Your task to perform on an android device: Open calendar and show me the second week of next month Image 0: 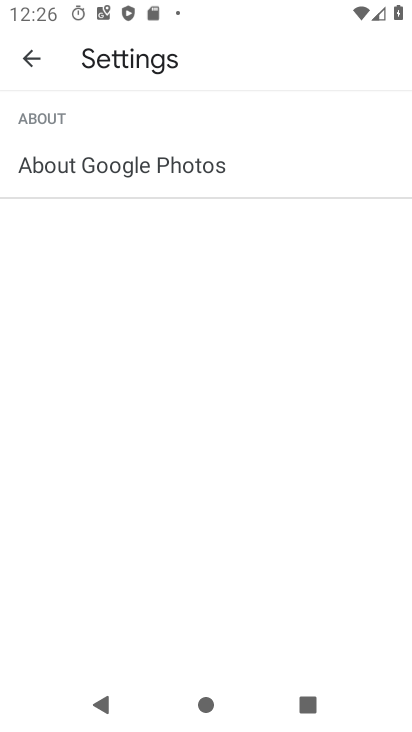
Step 0: press home button
Your task to perform on an android device: Open calendar and show me the second week of next month Image 1: 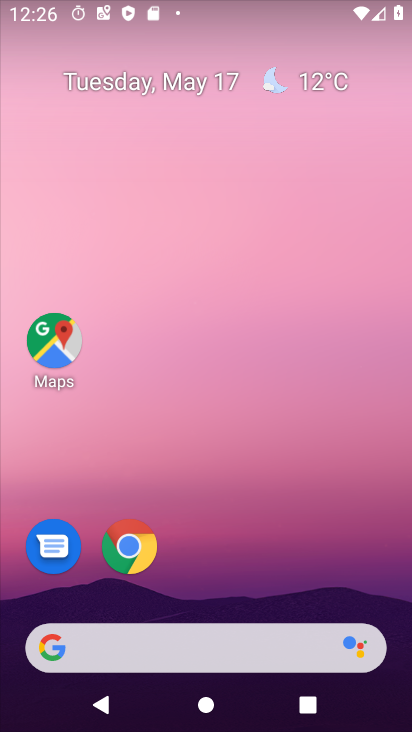
Step 1: drag from (168, 649) to (318, 120)
Your task to perform on an android device: Open calendar and show me the second week of next month Image 2: 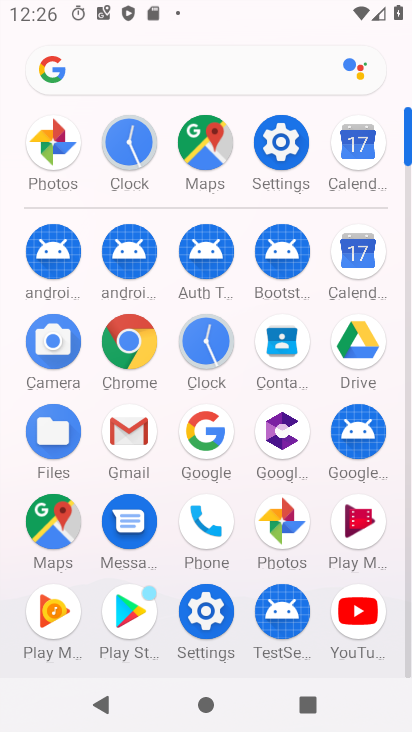
Step 2: click (340, 258)
Your task to perform on an android device: Open calendar and show me the second week of next month Image 3: 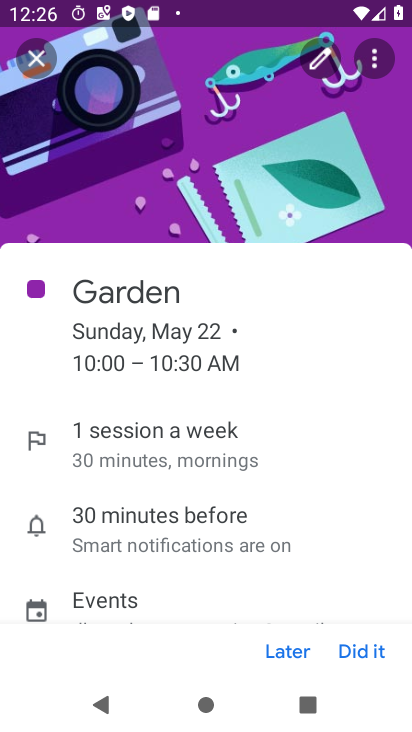
Step 3: click (34, 58)
Your task to perform on an android device: Open calendar and show me the second week of next month Image 4: 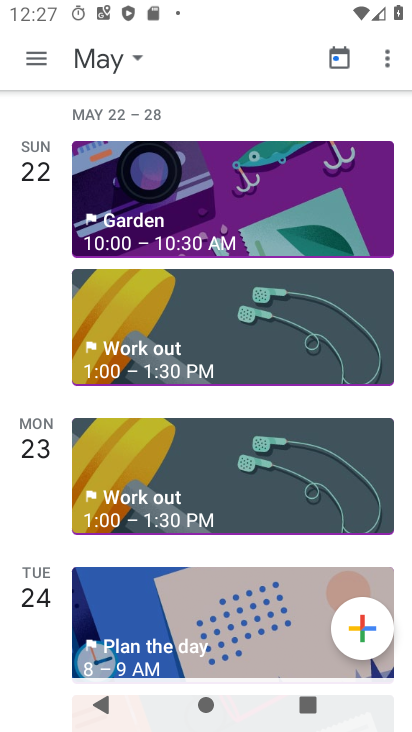
Step 4: click (104, 55)
Your task to perform on an android device: Open calendar and show me the second week of next month Image 5: 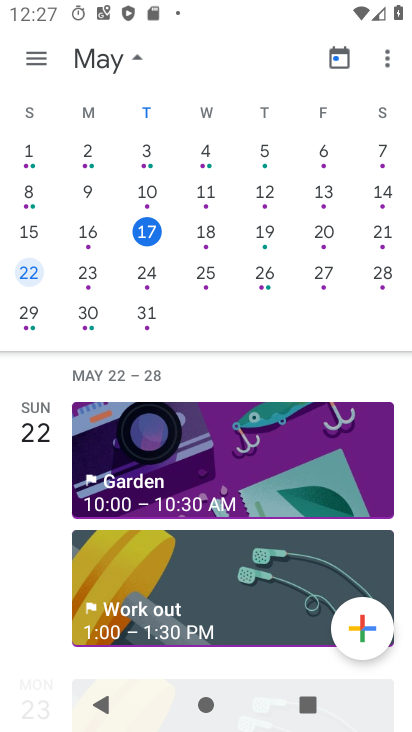
Step 5: drag from (343, 217) to (15, 178)
Your task to perform on an android device: Open calendar and show me the second week of next month Image 6: 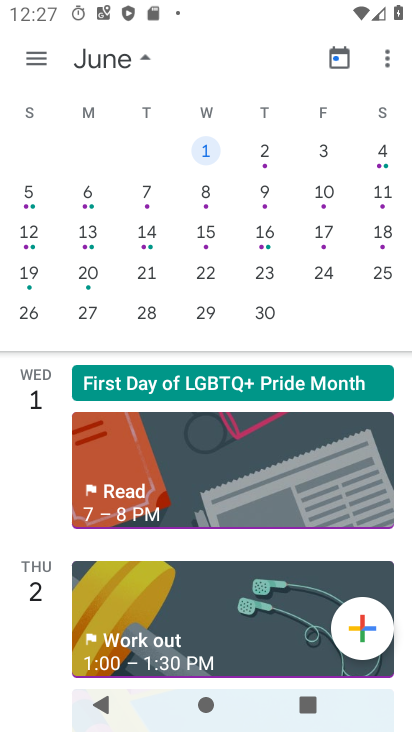
Step 6: click (34, 194)
Your task to perform on an android device: Open calendar and show me the second week of next month Image 7: 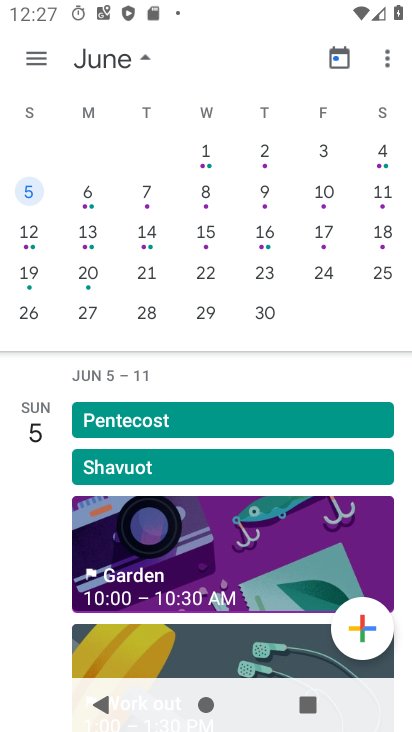
Step 7: click (30, 53)
Your task to perform on an android device: Open calendar and show me the second week of next month Image 8: 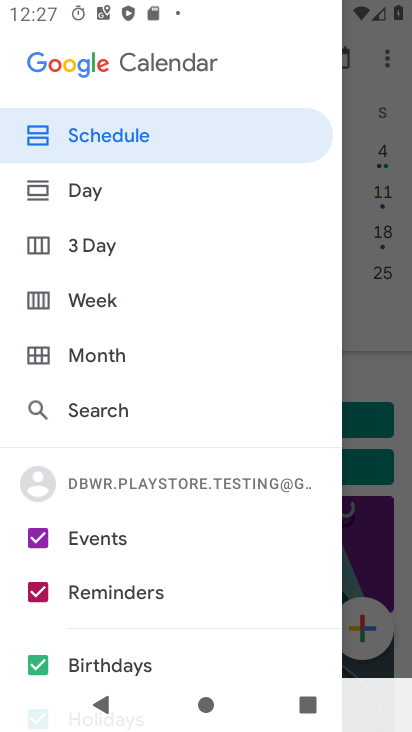
Step 8: click (99, 297)
Your task to perform on an android device: Open calendar and show me the second week of next month Image 9: 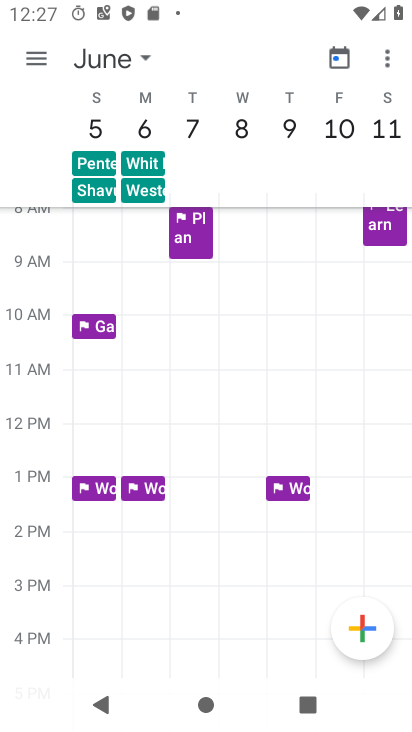
Step 9: task complete